Your task to perform on an android device: find photos in the google photos app Image 0: 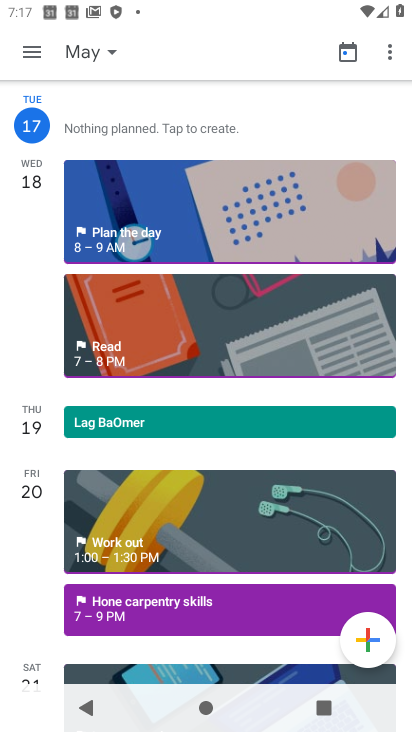
Step 0: press home button
Your task to perform on an android device: find photos in the google photos app Image 1: 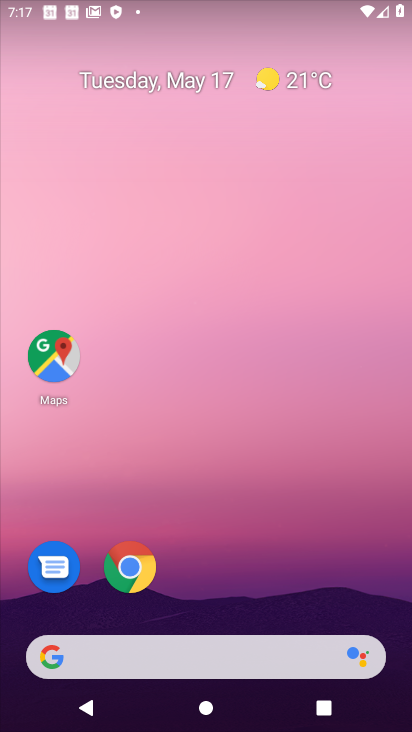
Step 1: drag from (273, 498) to (209, 115)
Your task to perform on an android device: find photos in the google photos app Image 2: 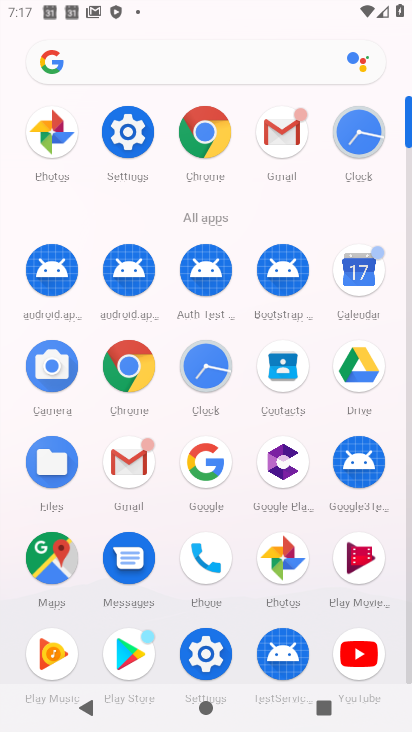
Step 2: click (47, 133)
Your task to perform on an android device: find photos in the google photos app Image 3: 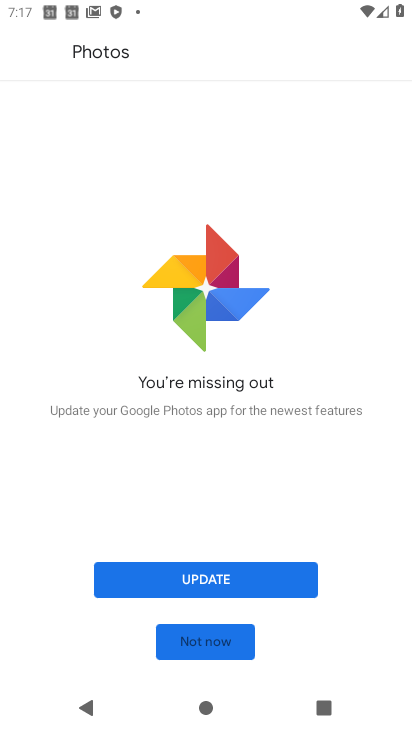
Step 3: click (185, 586)
Your task to perform on an android device: find photos in the google photos app Image 4: 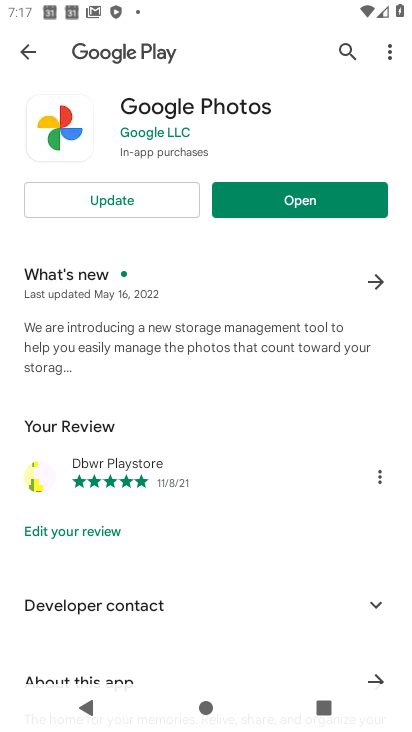
Step 4: click (127, 193)
Your task to perform on an android device: find photos in the google photos app Image 5: 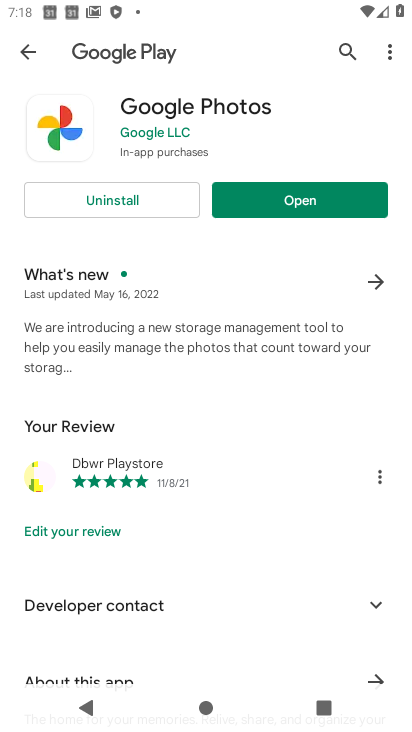
Step 5: click (256, 192)
Your task to perform on an android device: find photos in the google photos app Image 6: 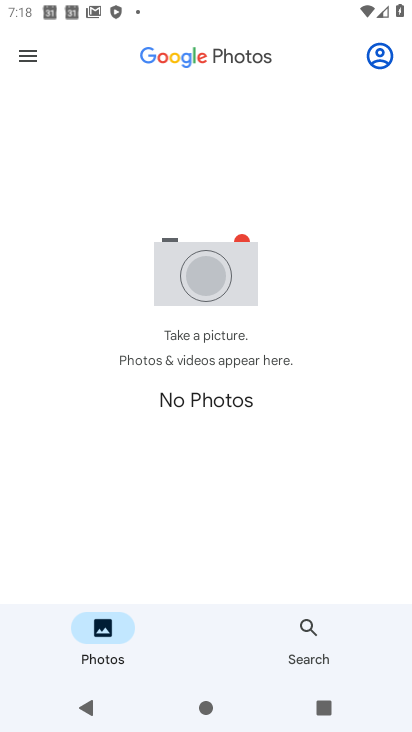
Step 6: click (91, 634)
Your task to perform on an android device: find photos in the google photos app Image 7: 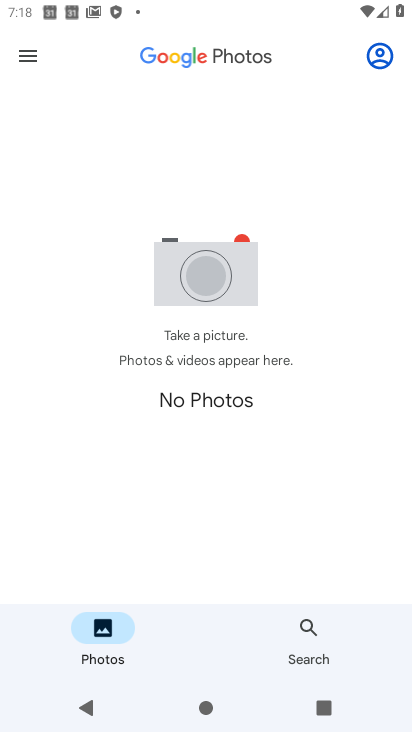
Step 7: click (296, 629)
Your task to perform on an android device: find photos in the google photos app Image 8: 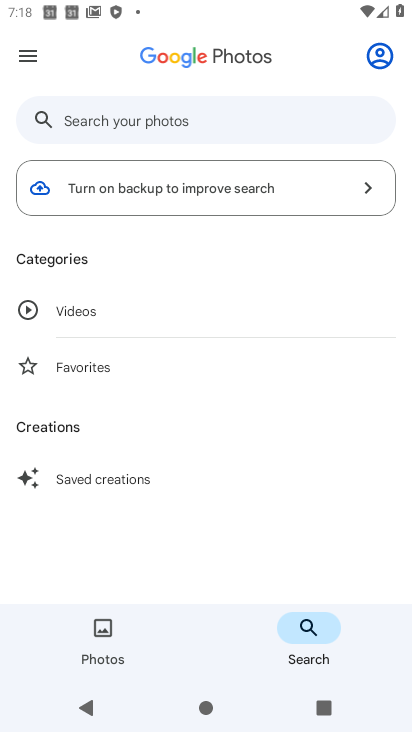
Step 8: task complete